Your task to perform on an android device: Set the phone to "Do not disturb". Image 0: 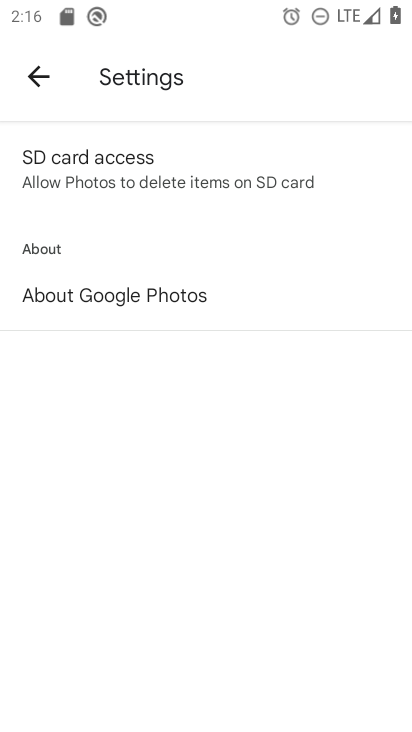
Step 0: press home button
Your task to perform on an android device: Set the phone to "Do not disturb". Image 1: 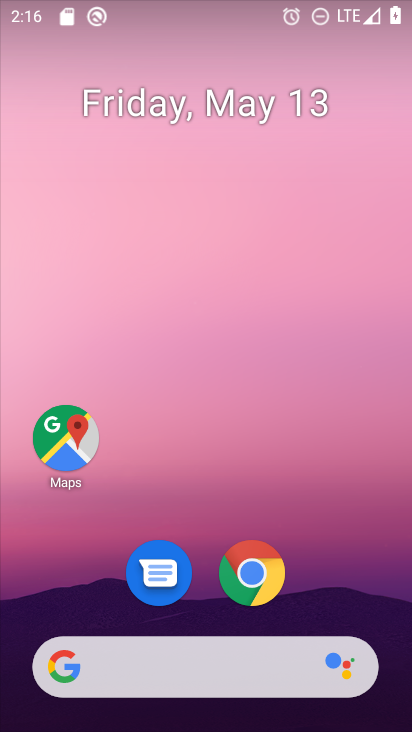
Step 1: drag from (221, 675) to (300, 195)
Your task to perform on an android device: Set the phone to "Do not disturb". Image 2: 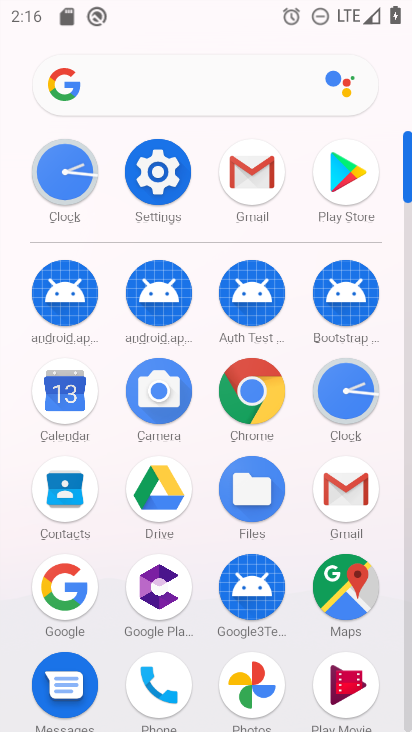
Step 2: click (170, 176)
Your task to perform on an android device: Set the phone to "Do not disturb". Image 3: 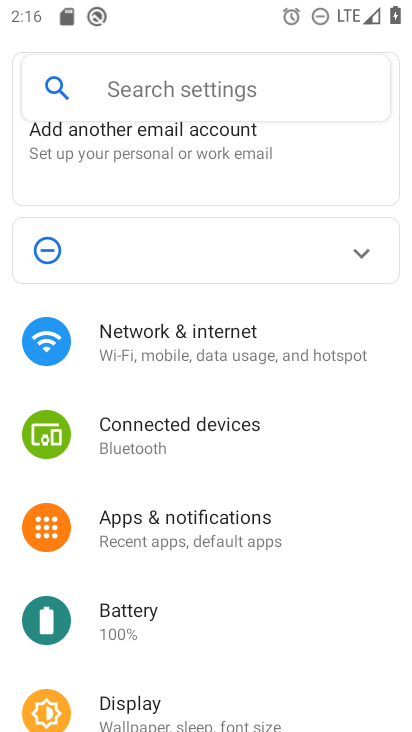
Step 3: drag from (262, 667) to (296, 102)
Your task to perform on an android device: Set the phone to "Do not disturb". Image 4: 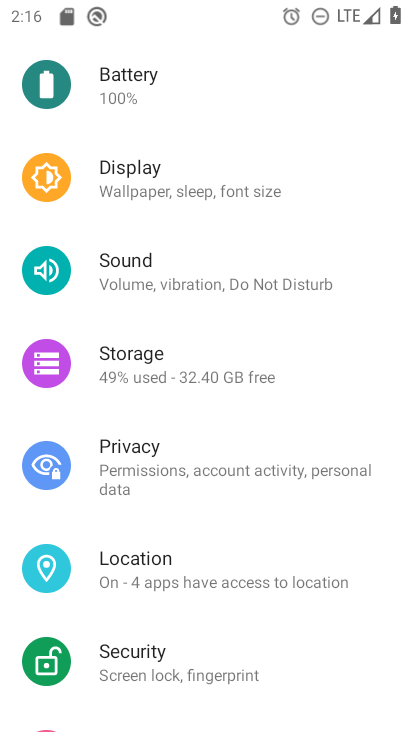
Step 4: click (259, 296)
Your task to perform on an android device: Set the phone to "Do not disturb". Image 5: 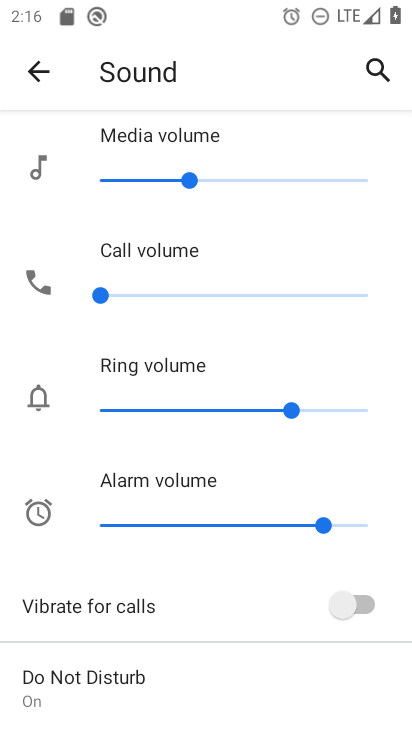
Step 5: task complete